Your task to perform on an android device: Search for Italian restaurants on Maps Image 0: 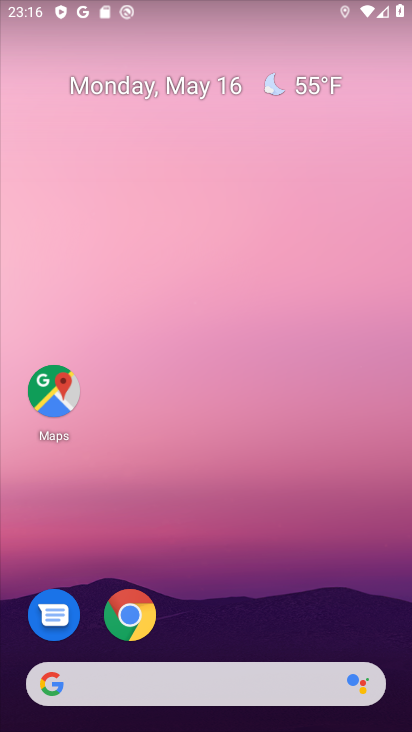
Step 0: drag from (211, 643) to (84, 8)
Your task to perform on an android device: Search for Italian restaurants on Maps Image 1: 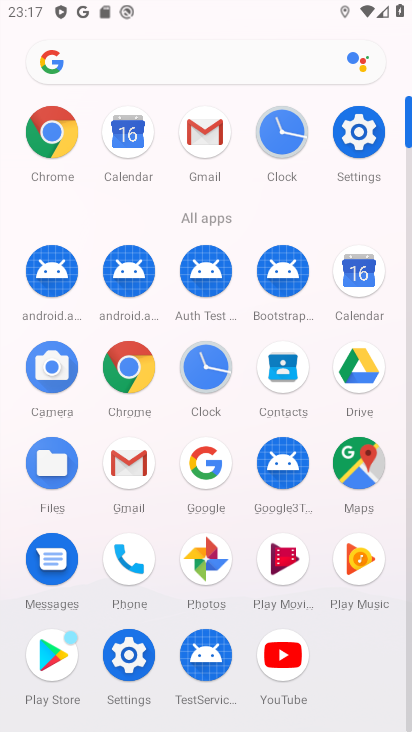
Step 1: click (354, 462)
Your task to perform on an android device: Search for Italian restaurants on Maps Image 2: 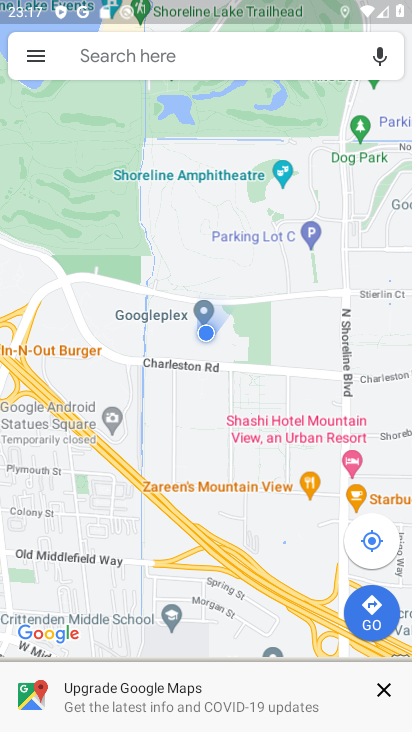
Step 2: click (231, 79)
Your task to perform on an android device: Search for Italian restaurants on Maps Image 3: 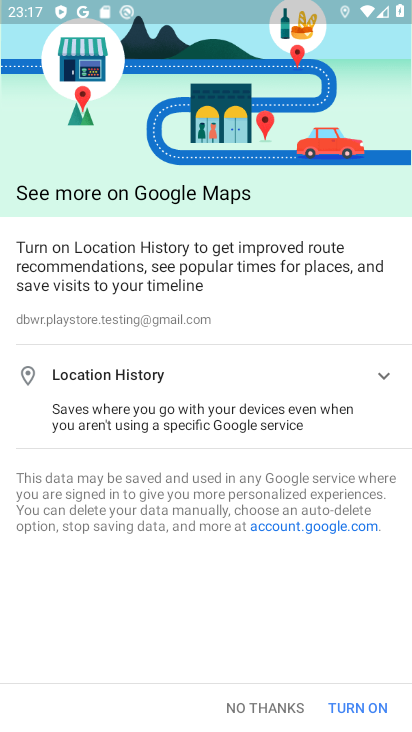
Step 3: click (370, 716)
Your task to perform on an android device: Search for Italian restaurants on Maps Image 4: 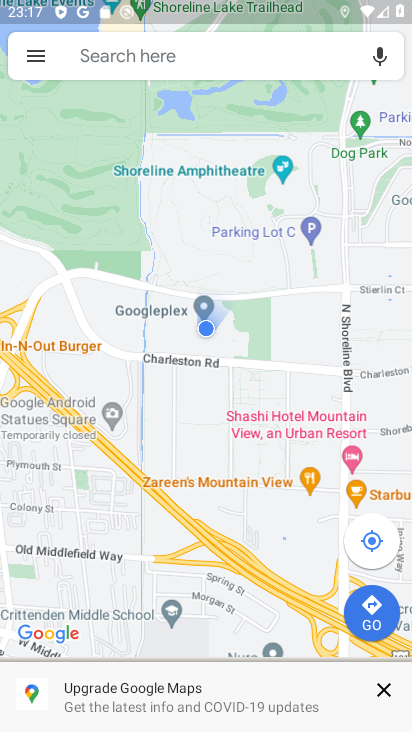
Step 4: click (144, 70)
Your task to perform on an android device: Search for Italian restaurants on Maps Image 5: 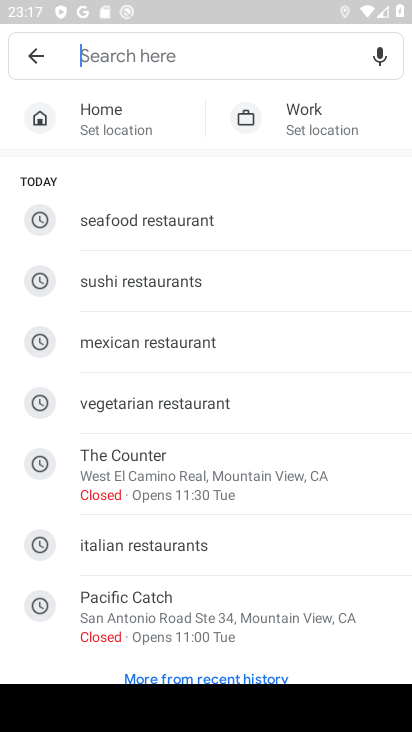
Step 5: click (130, 547)
Your task to perform on an android device: Search for Italian restaurants on Maps Image 6: 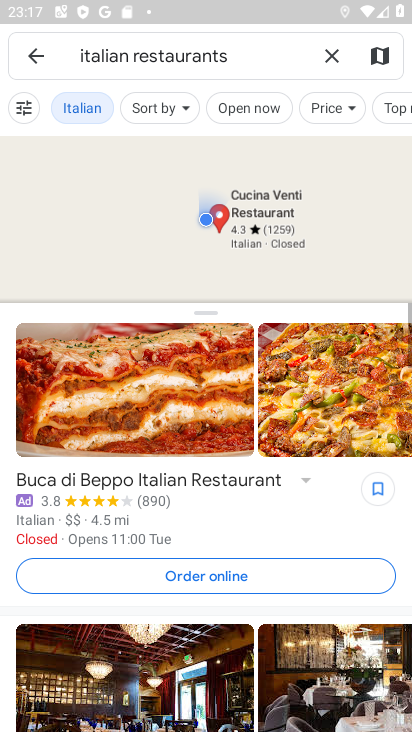
Step 6: task complete